Your task to perform on an android device: show emergency info Image 0: 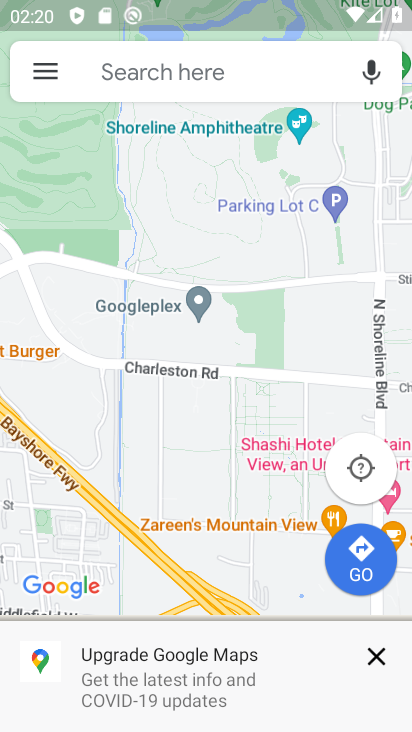
Step 0: press home button
Your task to perform on an android device: show emergency info Image 1: 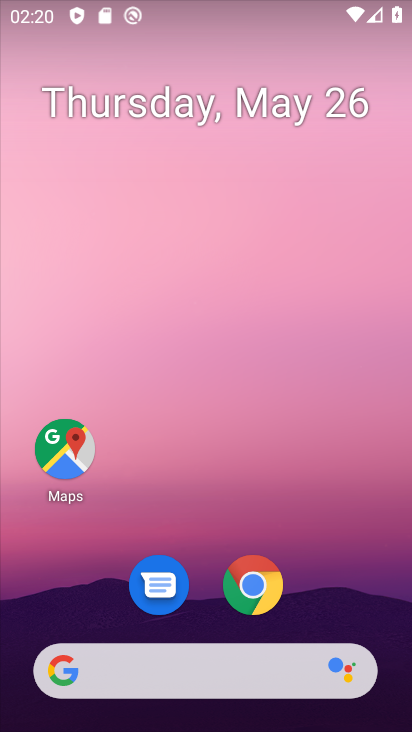
Step 1: drag from (232, 506) to (250, 39)
Your task to perform on an android device: show emergency info Image 2: 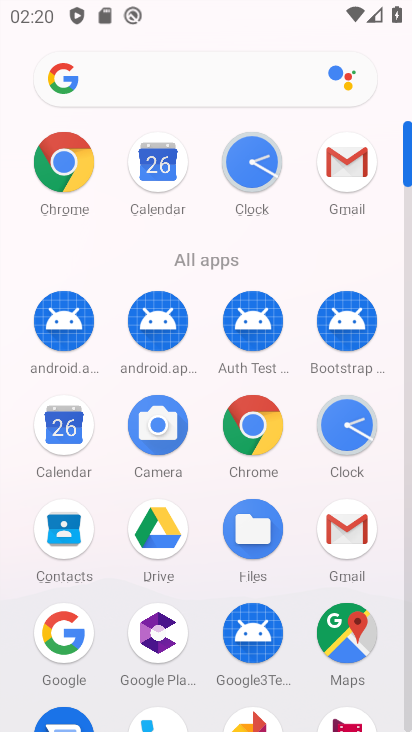
Step 2: drag from (199, 486) to (236, 156)
Your task to perform on an android device: show emergency info Image 3: 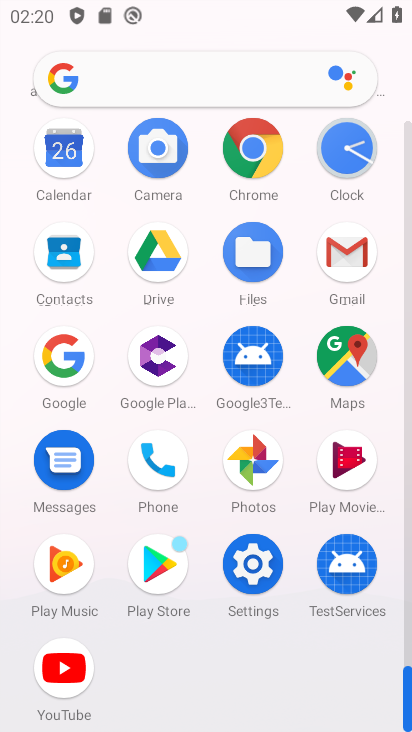
Step 3: click (247, 577)
Your task to perform on an android device: show emergency info Image 4: 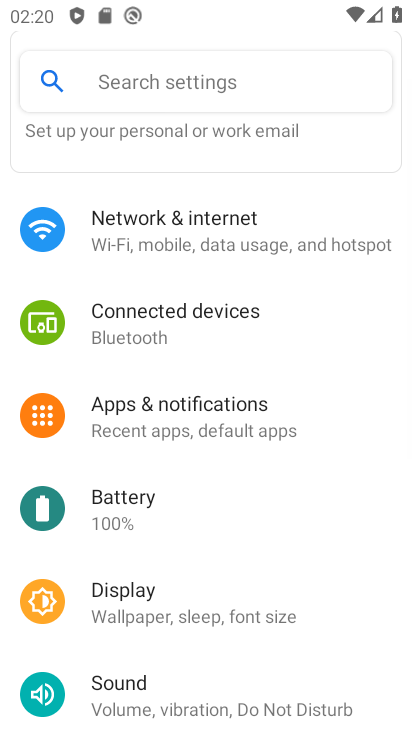
Step 4: drag from (243, 554) to (228, 175)
Your task to perform on an android device: show emergency info Image 5: 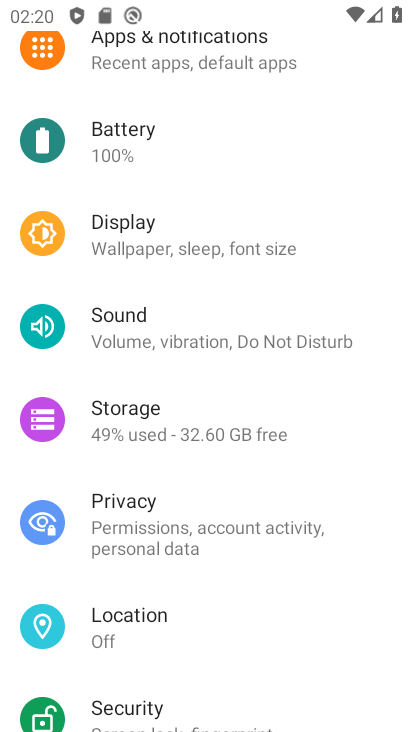
Step 5: drag from (207, 459) to (240, 103)
Your task to perform on an android device: show emergency info Image 6: 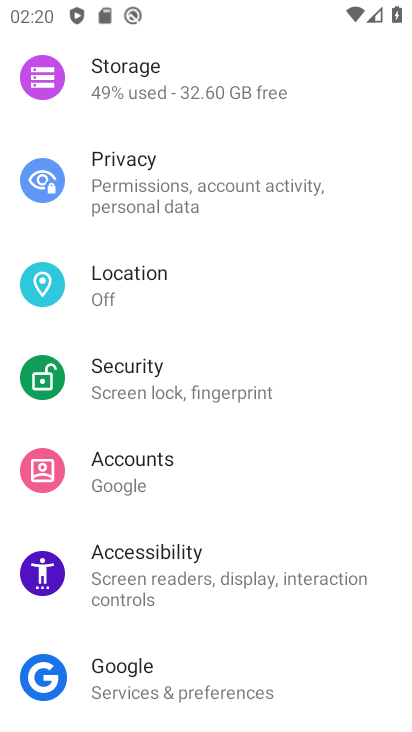
Step 6: drag from (234, 532) to (289, 230)
Your task to perform on an android device: show emergency info Image 7: 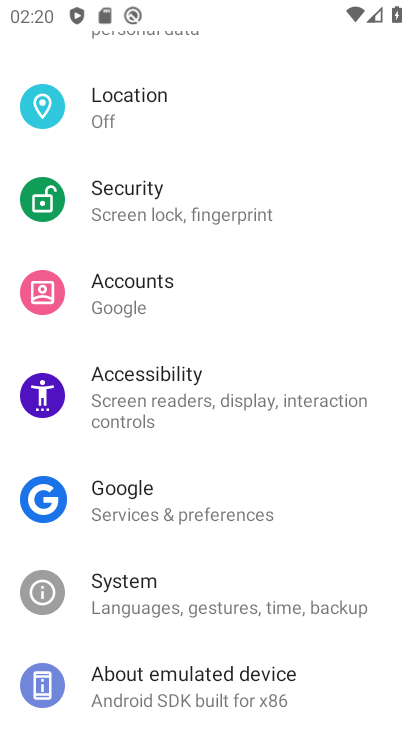
Step 7: click (204, 672)
Your task to perform on an android device: show emergency info Image 8: 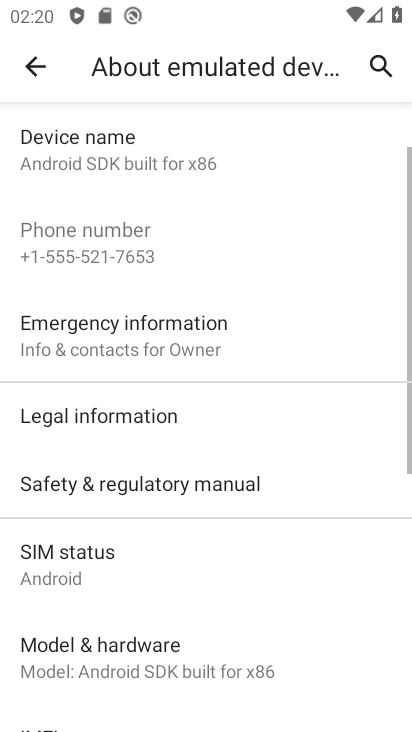
Step 8: click (196, 337)
Your task to perform on an android device: show emergency info Image 9: 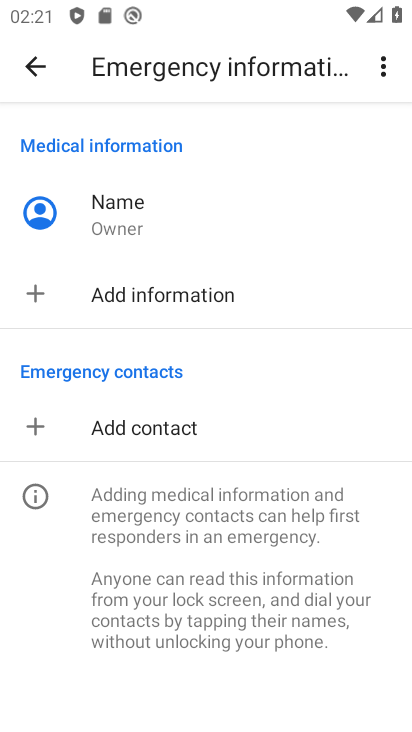
Step 9: task complete